Your task to perform on an android device: find which apps use the phone's location Image 0: 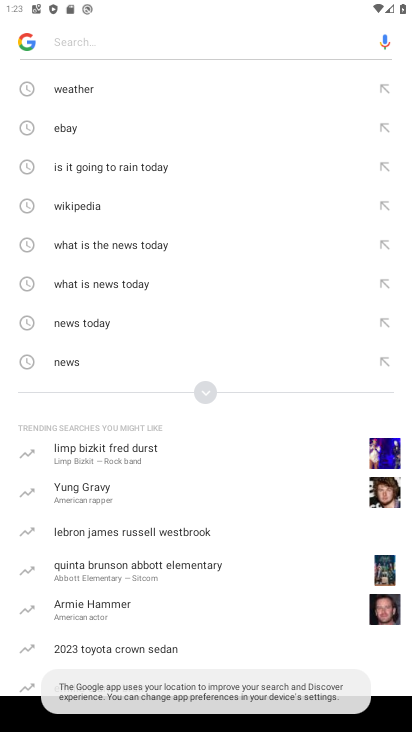
Step 0: press back button
Your task to perform on an android device: find which apps use the phone's location Image 1: 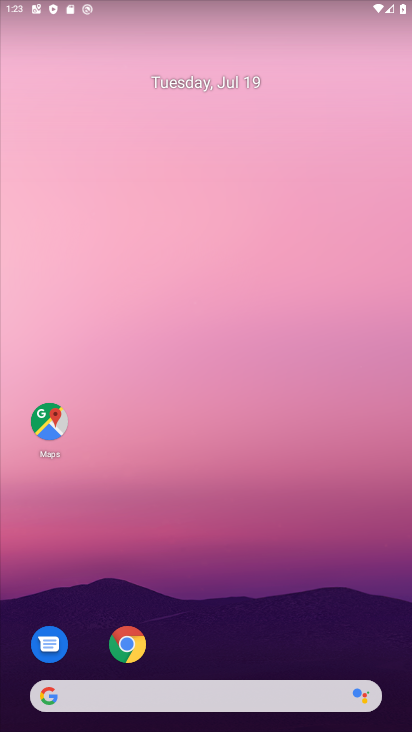
Step 1: drag from (224, 665) to (234, 8)
Your task to perform on an android device: find which apps use the phone's location Image 2: 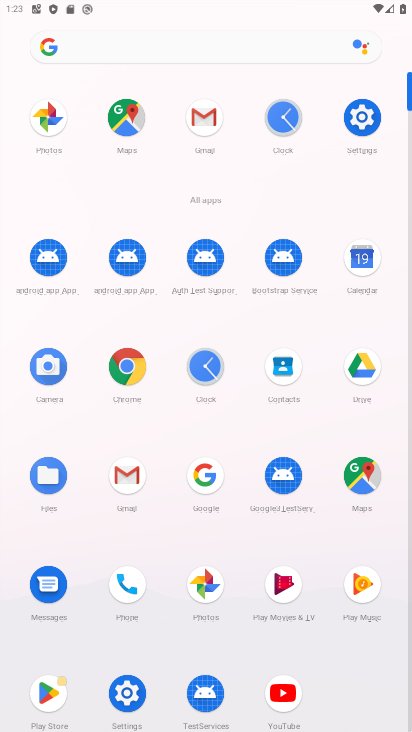
Step 2: click (371, 118)
Your task to perform on an android device: find which apps use the phone's location Image 3: 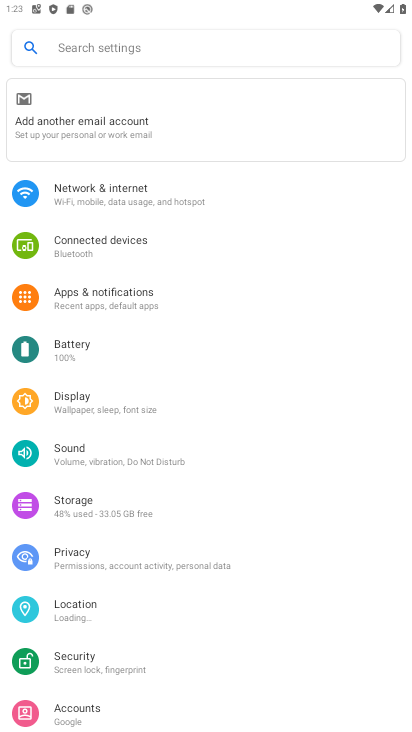
Step 3: click (79, 611)
Your task to perform on an android device: find which apps use the phone's location Image 4: 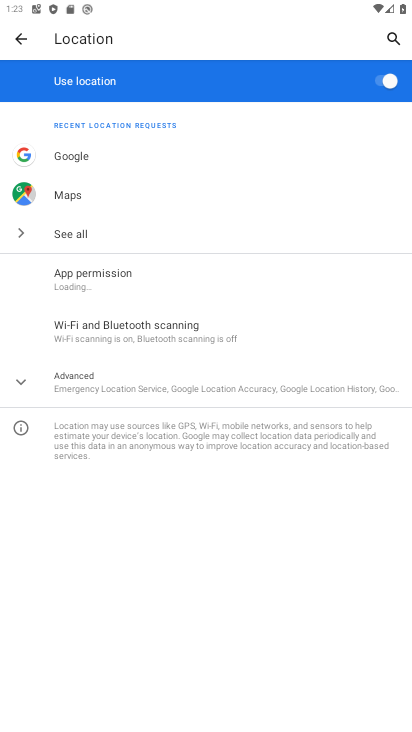
Step 4: click (100, 376)
Your task to perform on an android device: find which apps use the phone's location Image 5: 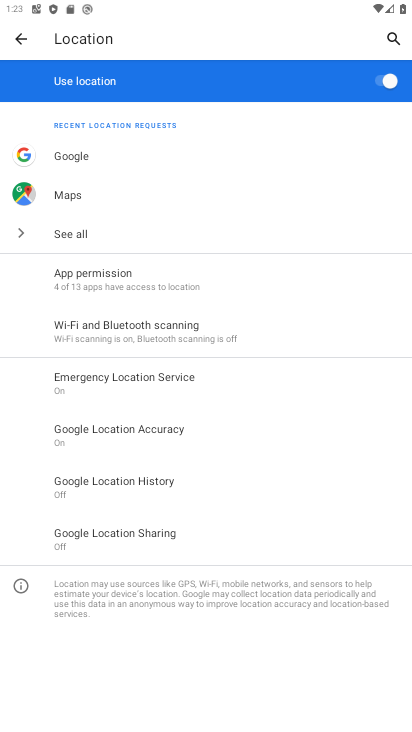
Step 5: click (99, 279)
Your task to perform on an android device: find which apps use the phone's location Image 6: 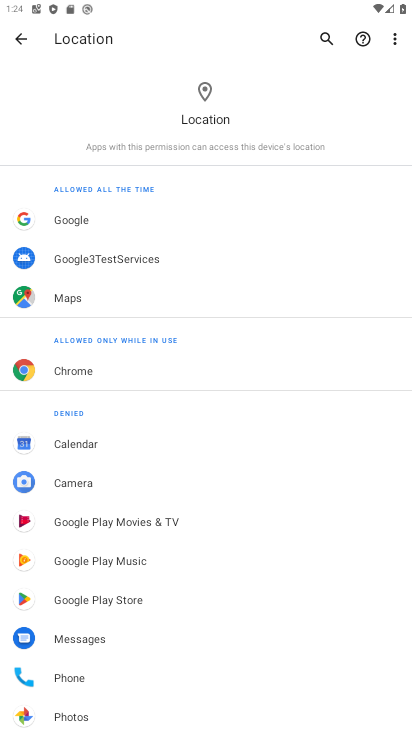
Step 6: task complete